Your task to perform on an android device: Show me recent news Image 0: 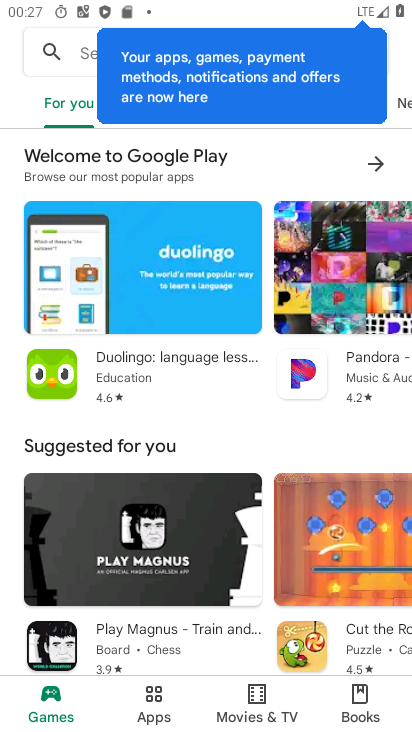
Step 0: press home button
Your task to perform on an android device: Show me recent news Image 1: 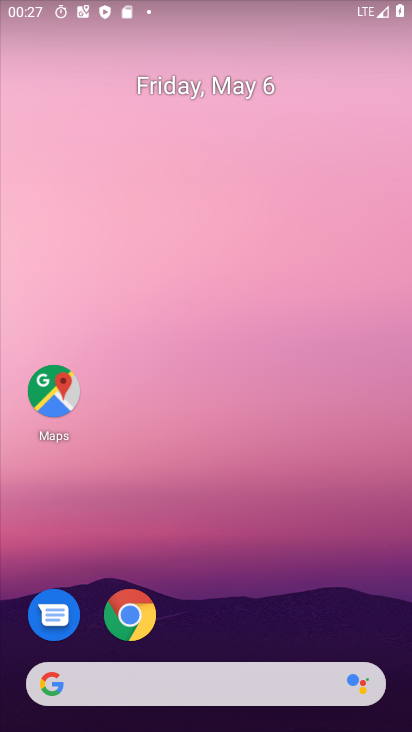
Step 1: drag from (229, 586) to (253, 78)
Your task to perform on an android device: Show me recent news Image 2: 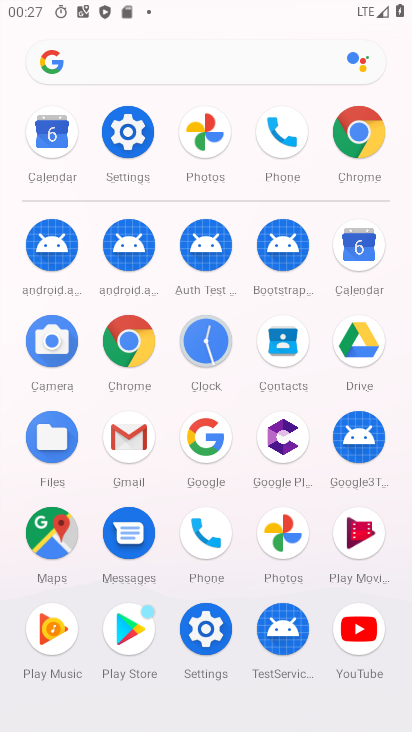
Step 2: click (210, 434)
Your task to perform on an android device: Show me recent news Image 3: 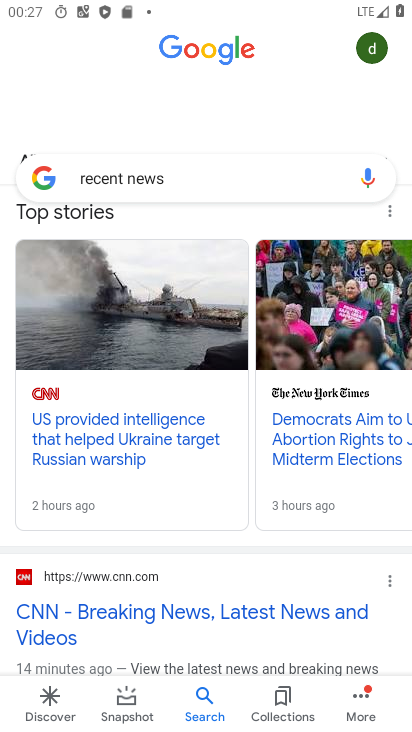
Step 3: click (222, 165)
Your task to perform on an android device: Show me recent news Image 4: 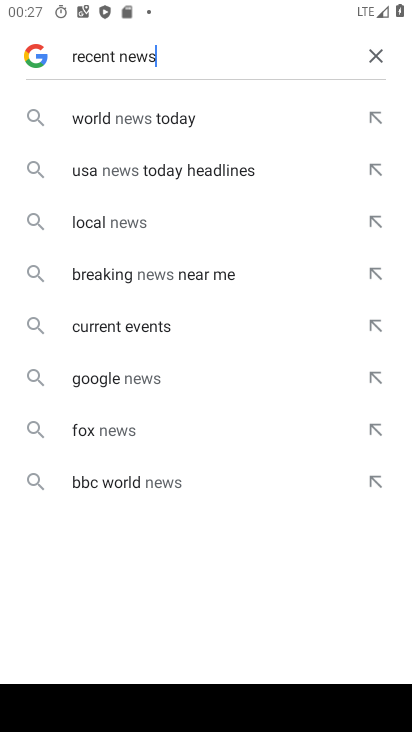
Step 4: click (247, 52)
Your task to perform on an android device: Show me recent news Image 5: 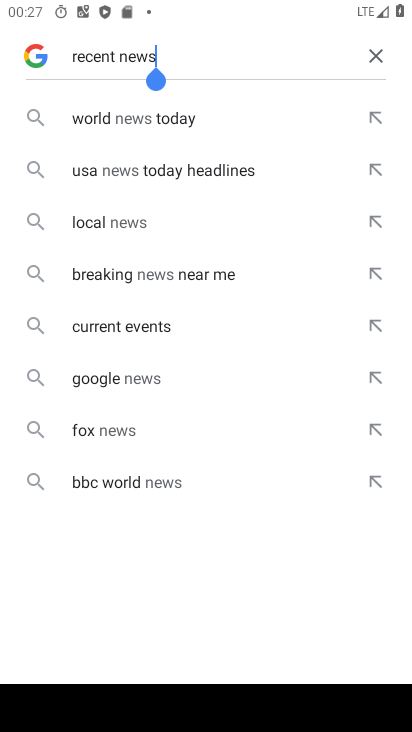
Step 5: click (371, 44)
Your task to perform on an android device: Show me recent news Image 6: 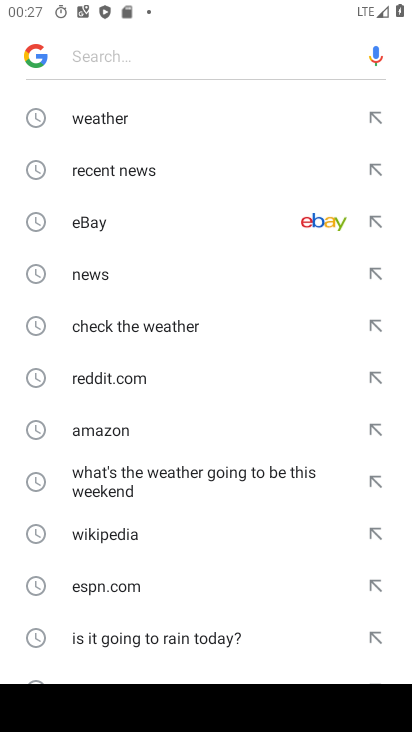
Step 6: click (137, 156)
Your task to perform on an android device: Show me recent news Image 7: 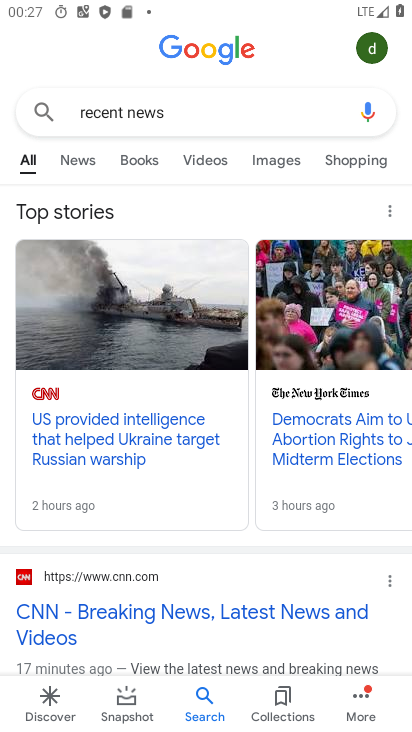
Step 7: task complete